Your task to perform on an android device: allow cookies in the chrome app Image 0: 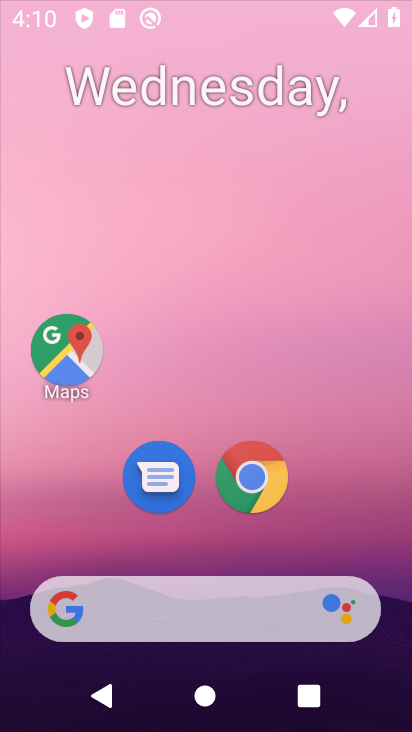
Step 0: press home button
Your task to perform on an android device: allow cookies in the chrome app Image 1: 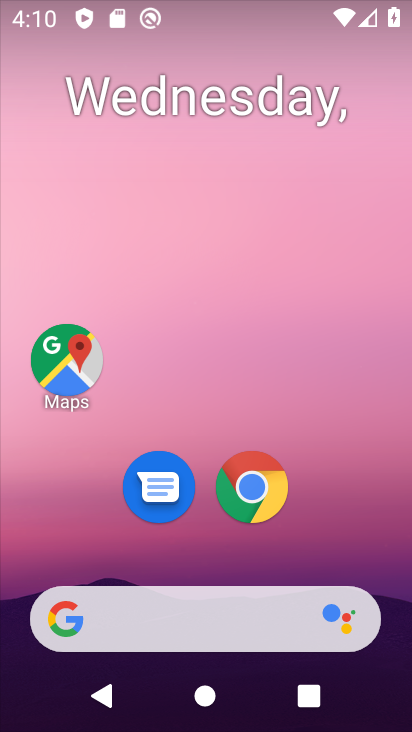
Step 1: click (246, 474)
Your task to perform on an android device: allow cookies in the chrome app Image 2: 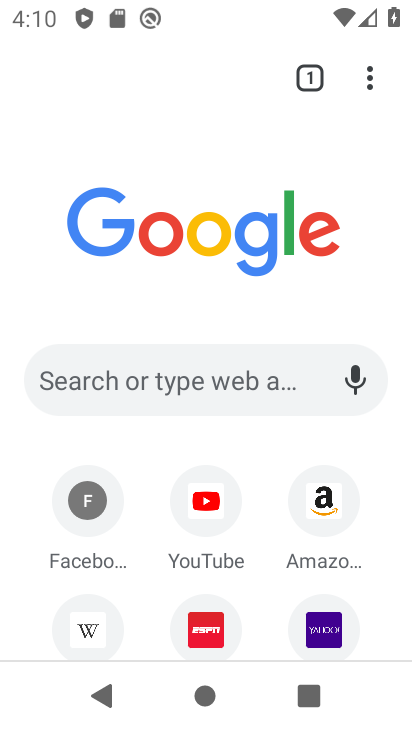
Step 2: click (368, 73)
Your task to perform on an android device: allow cookies in the chrome app Image 3: 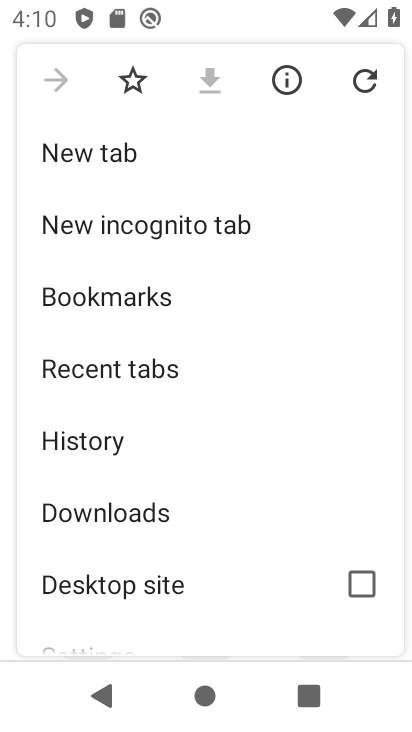
Step 3: drag from (246, 553) to (265, 64)
Your task to perform on an android device: allow cookies in the chrome app Image 4: 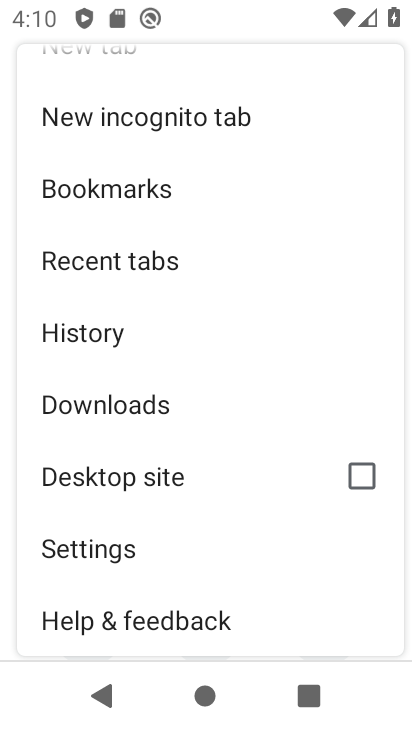
Step 4: click (145, 542)
Your task to perform on an android device: allow cookies in the chrome app Image 5: 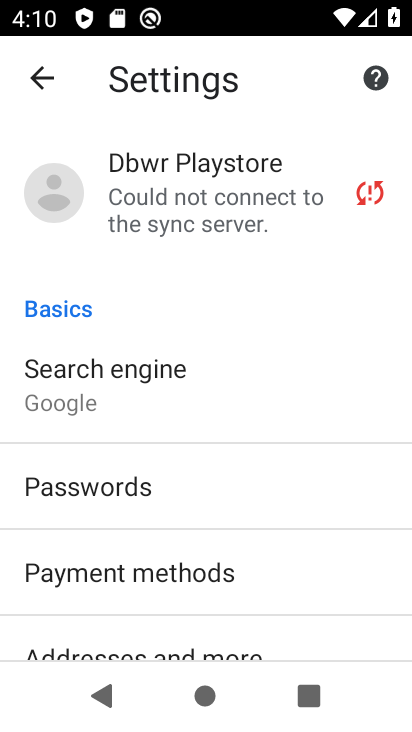
Step 5: drag from (235, 613) to (244, 117)
Your task to perform on an android device: allow cookies in the chrome app Image 6: 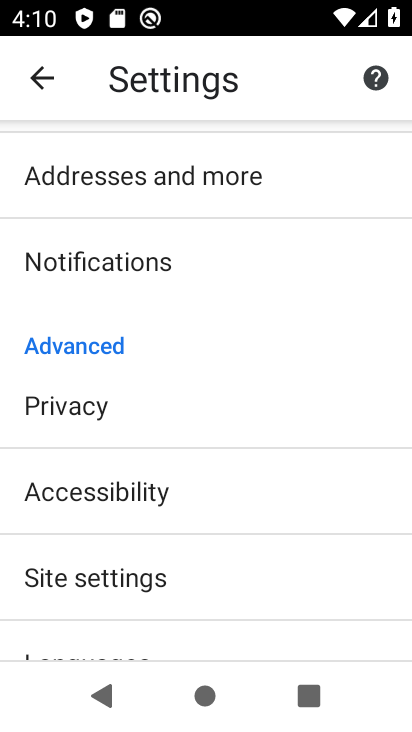
Step 6: click (191, 595)
Your task to perform on an android device: allow cookies in the chrome app Image 7: 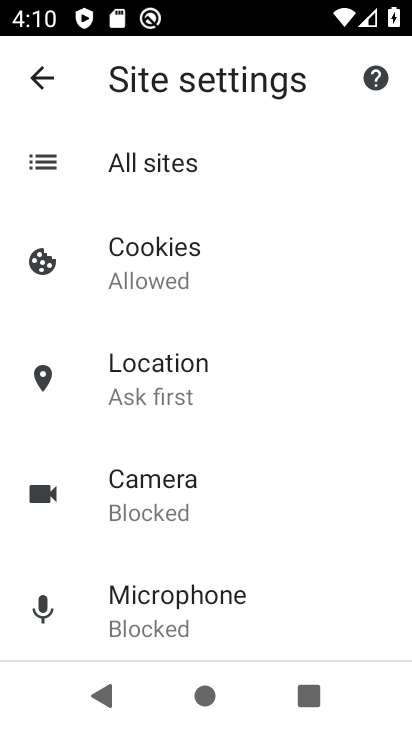
Step 7: click (88, 258)
Your task to perform on an android device: allow cookies in the chrome app Image 8: 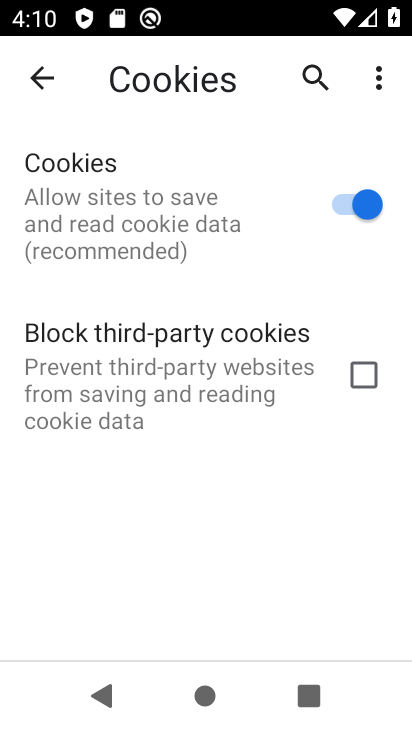
Step 8: task complete